Your task to perform on an android device: Open Youtube and go to "Your channel" Image 0: 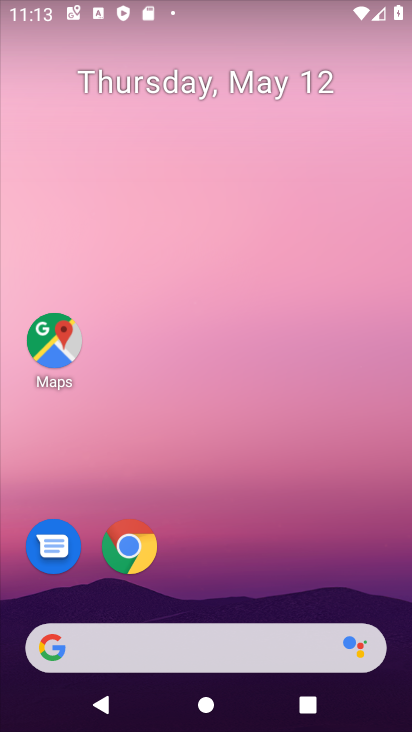
Step 0: drag from (278, 679) to (210, 36)
Your task to perform on an android device: Open Youtube and go to "Your channel" Image 1: 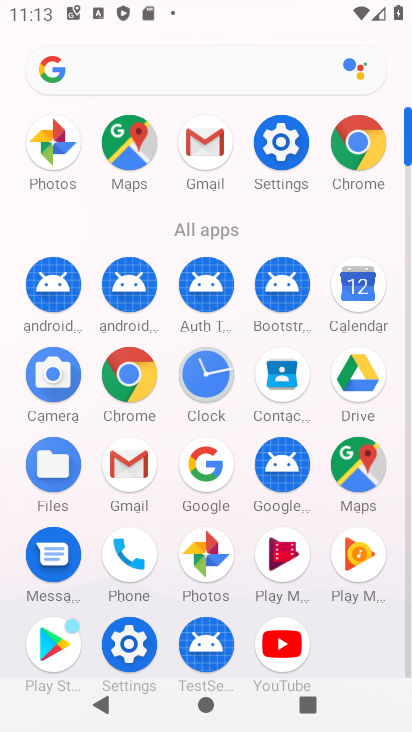
Step 1: click (272, 643)
Your task to perform on an android device: Open Youtube and go to "Your channel" Image 2: 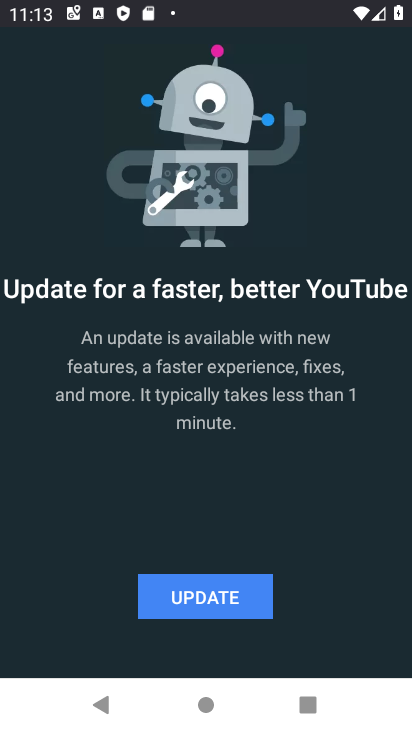
Step 2: click (249, 590)
Your task to perform on an android device: Open Youtube and go to "Your channel" Image 3: 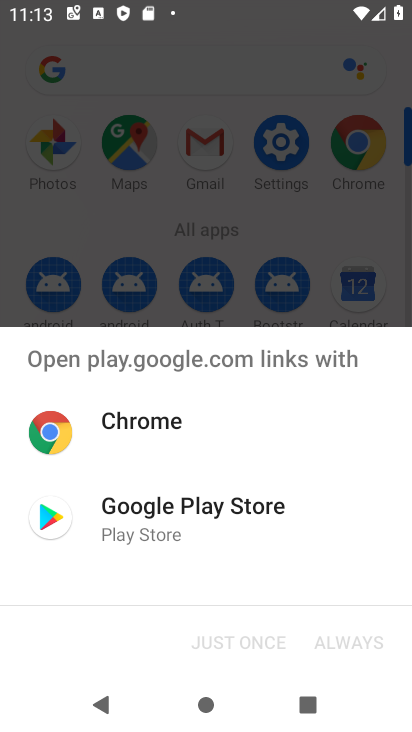
Step 3: click (165, 523)
Your task to perform on an android device: Open Youtube and go to "Your channel" Image 4: 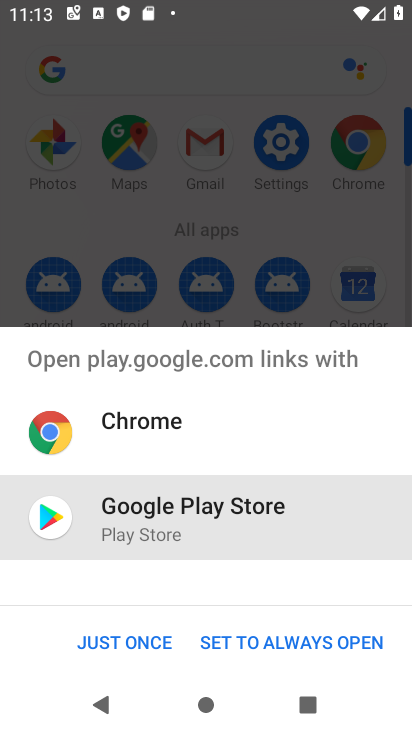
Step 4: click (119, 646)
Your task to perform on an android device: Open Youtube and go to "Your channel" Image 5: 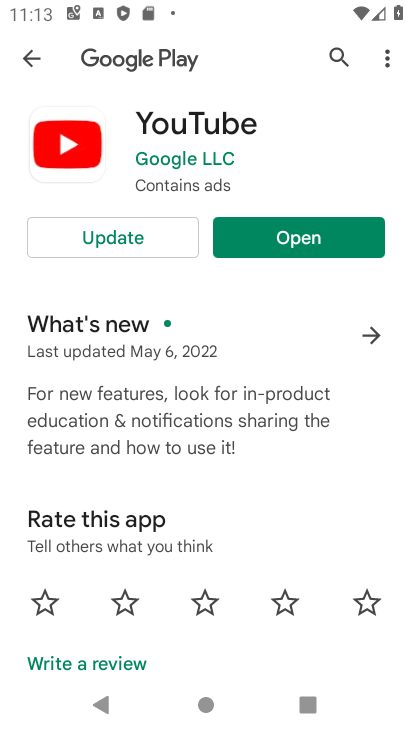
Step 5: click (86, 243)
Your task to perform on an android device: Open Youtube and go to "Your channel" Image 6: 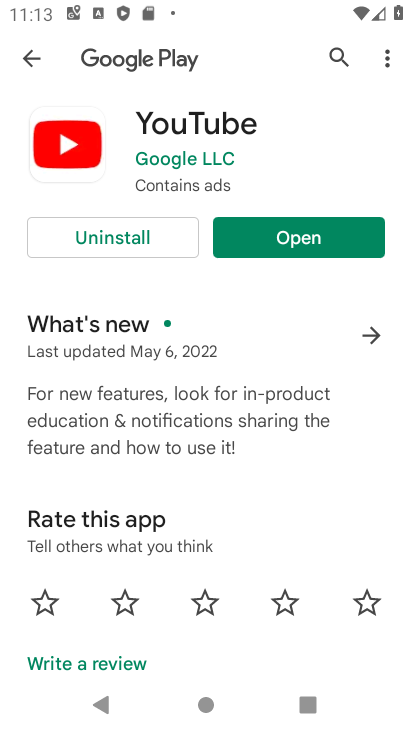
Step 6: click (253, 241)
Your task to perform on an android device: Open Youtube and go to "Your channel" Image 7: 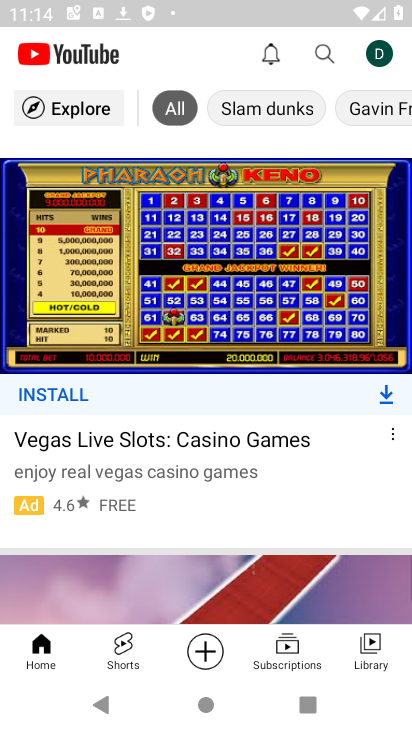
Step 7: click (387, 54)
Your task to perform on an android device: Open Youtube and go to "Your channel" Image 8: 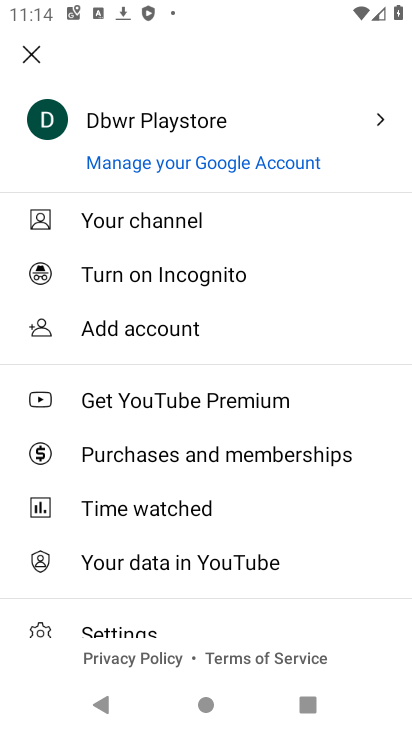
Step 8: click (164, 229)
Your task to perform on an android device: Open Youtube and go to "Your channel" Image 9: 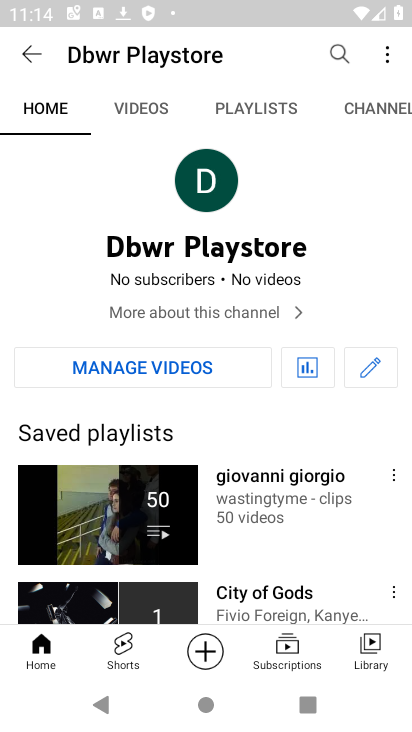
Step 9: task complete